Your task to perform on an android device: empty trash in google photos Image 0: 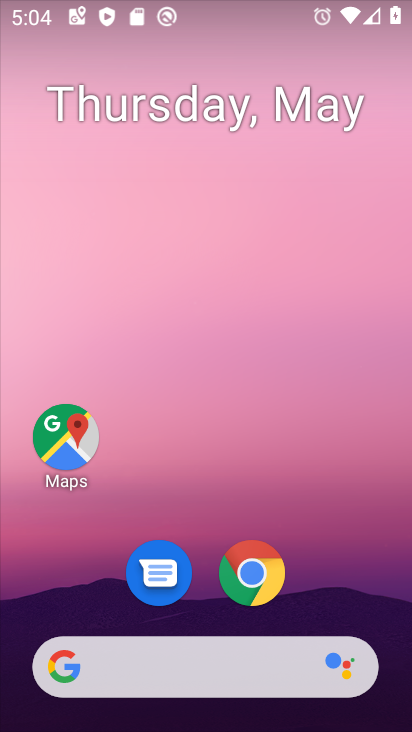
Step 0: drag from (322, 582) to (263, 131)
Your task to perform on an android device: empty trash in google photos Image 1: 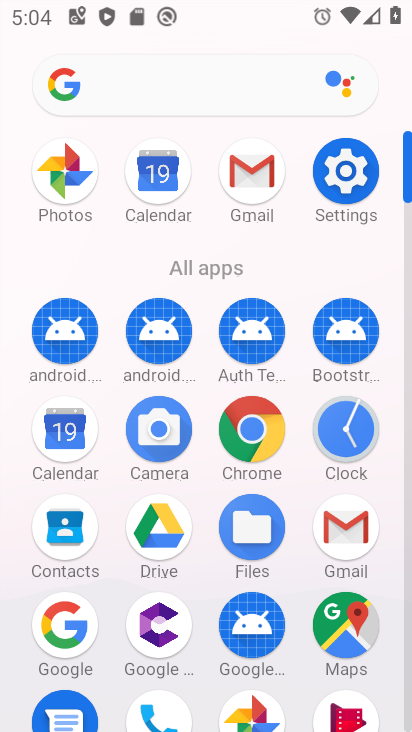
Step 1: click (51, 195)
Your task to perform on an android device: empty trash in google photos Image 2: 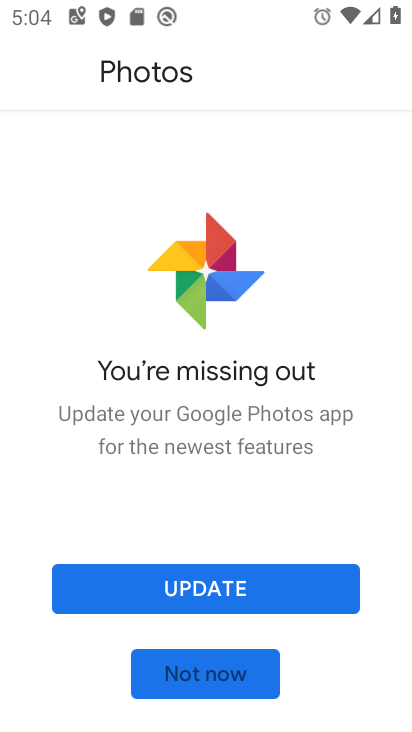
Step 2: click (178, 690)
Your task to perform on an android device: empty trash in google photos Image 3: 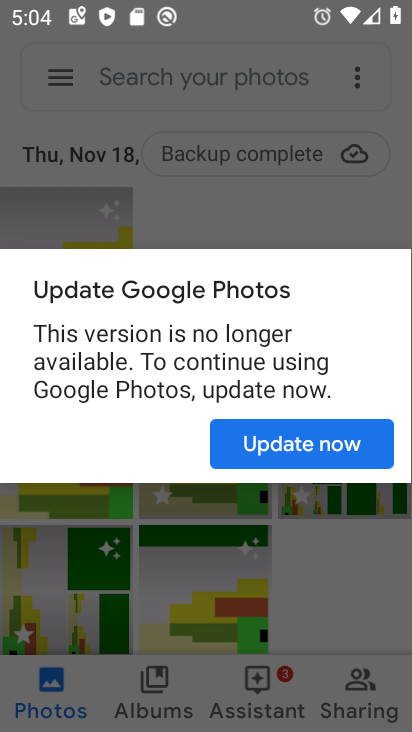
Step 3: click (270, 455)
Your task to perform on an android device: empty trash in google photos Image 4: 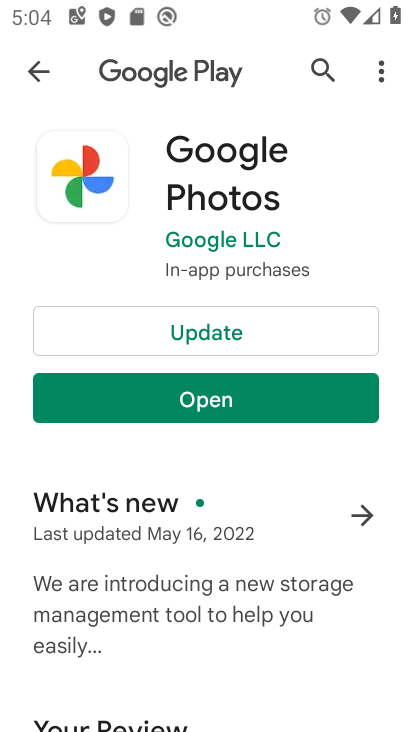
Step 4: click (221, 404)
Your task to perform on an android device: empty trash in google photos Image 5: 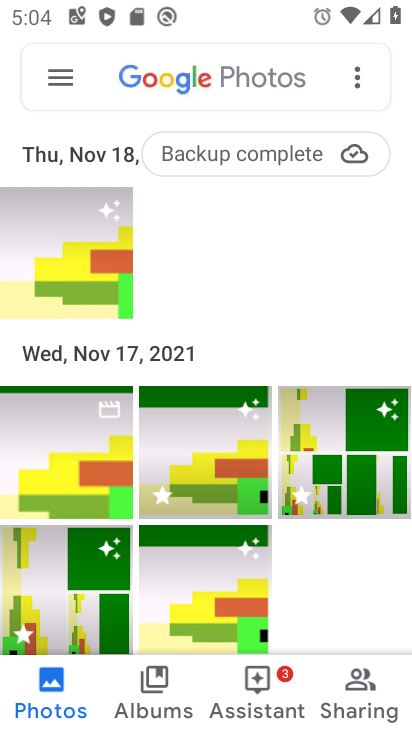
Step 5: click (53, 82)
Your task to perform on an android device: empty trash in google photos Image 6: 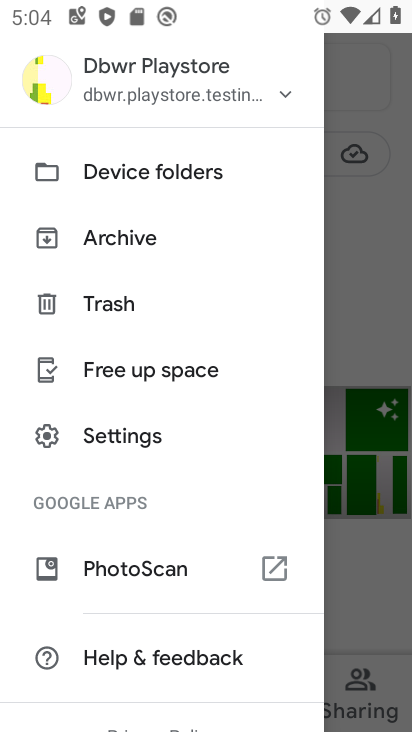
Step 6: click (103, 301)
Your task to perform on an android device: empty trash in google photos Image 7: 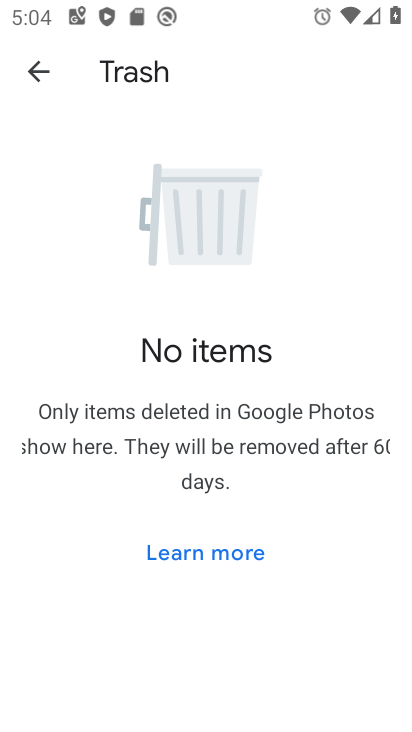
Step 7: task complete